Your task to perform on an android device: What's the weather today? Image 0: 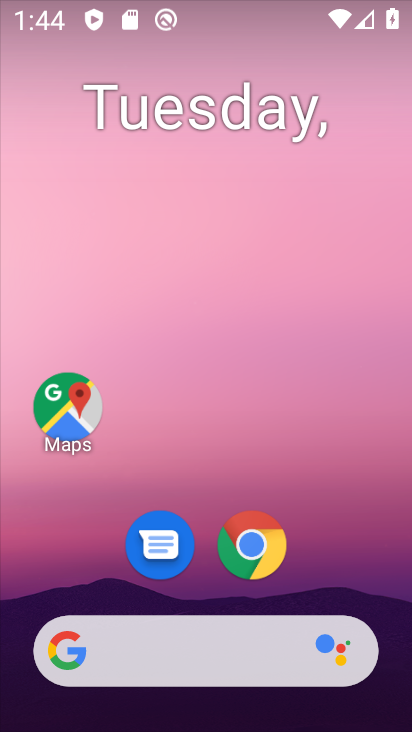
Step 0: drag from (318, 498) to (255, 54)
Your task to perform on an android device: What's the weather today? Image 1: 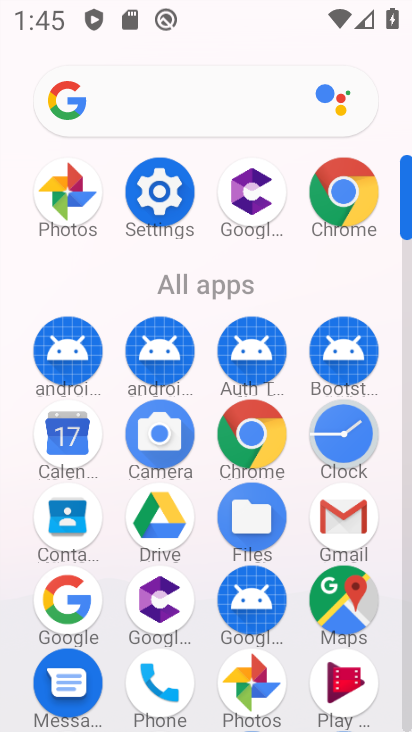
Step 1: drag from (6, 410) to (6, 209)
Your task to perform on an android device: What's the weather today? Image 2: 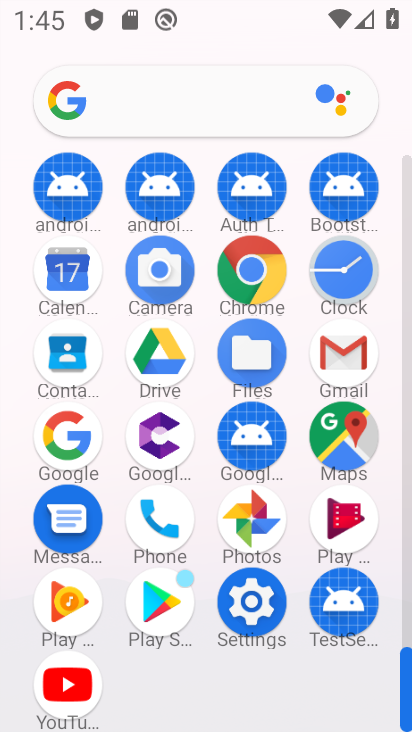
Step 2: click (252, 263)
Your task to perform on an android device: What's the weather today? Image 3: 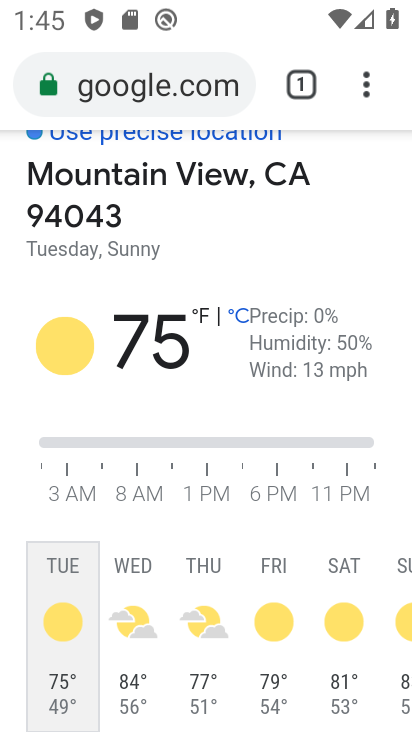
Step 3: task complete